Your task to perform on an android device: find snoozed emails in the gmail app Image 0: 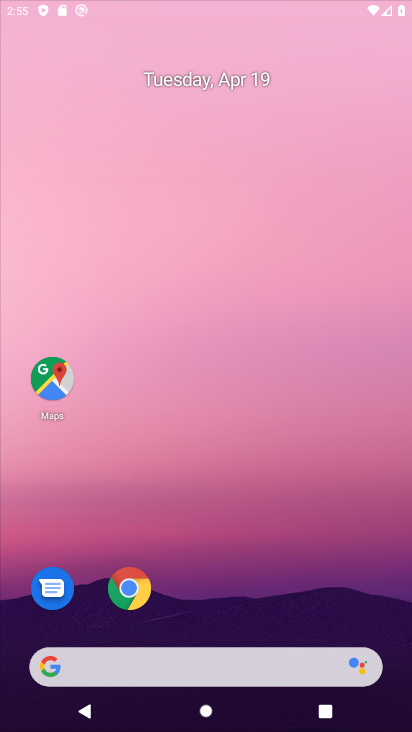
Step 0: drag from (207, 606) to (277, 188)
Your task to perform on an android device: find snoozed emails in the gmail app Image 1: 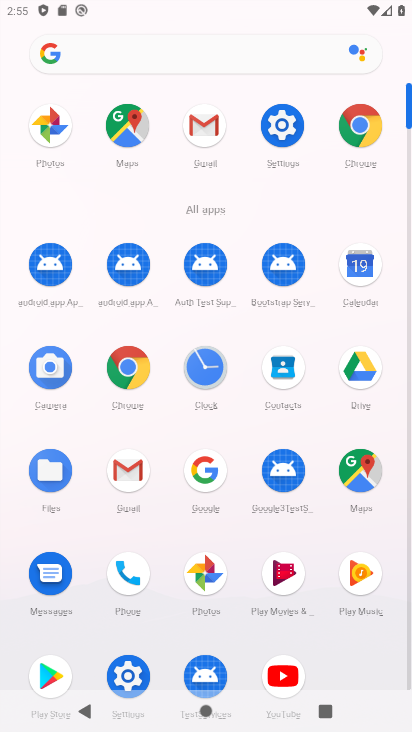
Step 1: click (135, 468)
Your task to perform on an android device: find snoozed emails in the gmail app Image 2: 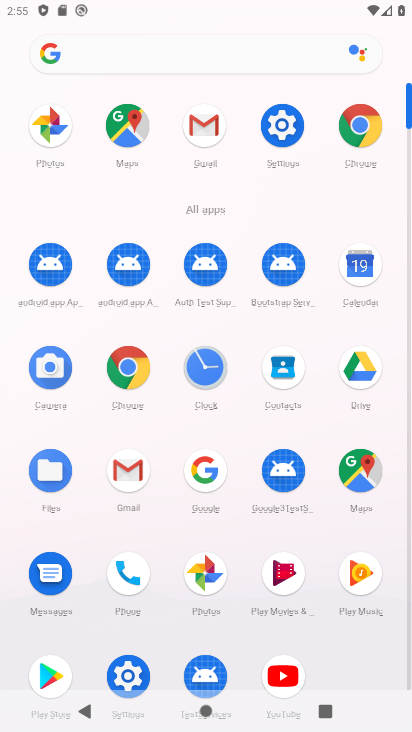
Step 2: click (135, 468)
Your task to perform on an android device: find snoozed emails in the gmail app Image 3: 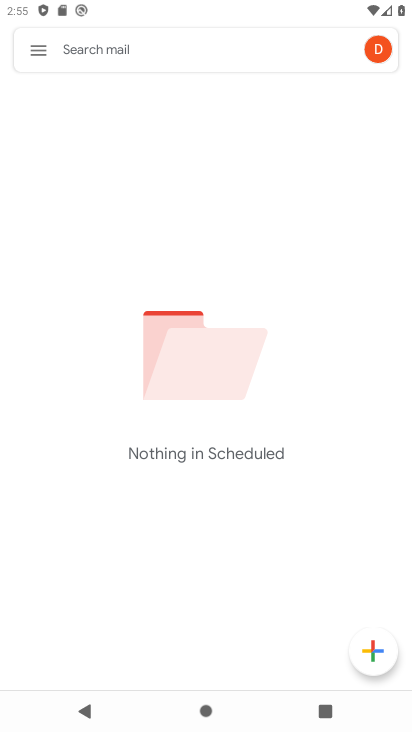
Step 3: click (33, 38)
Your task to perform on an android device: find snoozed emails in the gmail app Image 4: 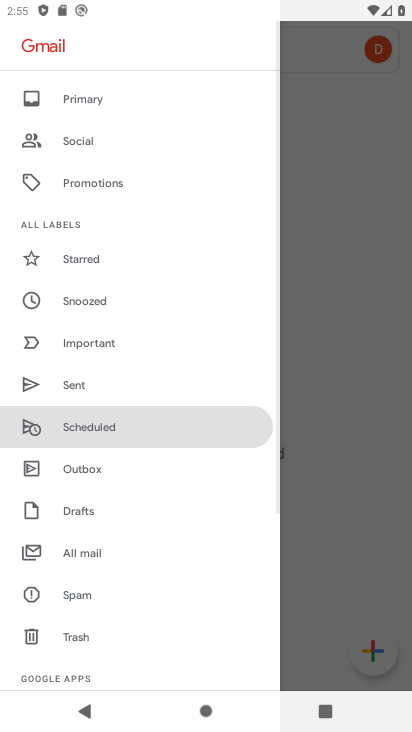
Step 4: click (99, 293)
Your task to perform on an android device: find snoozed emails in the gmail app Image 5: 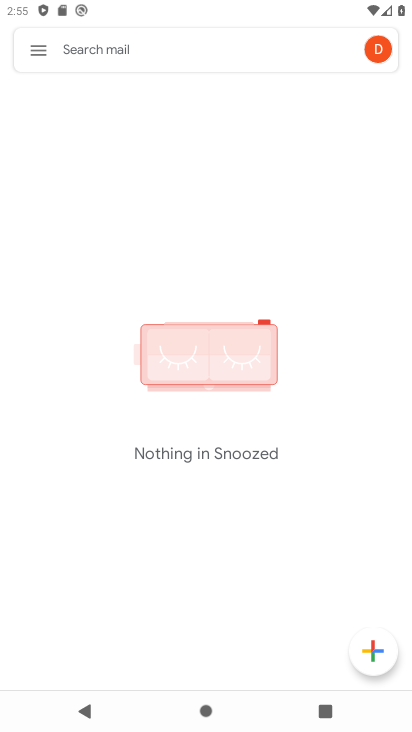
Step 5: click (38, 46)
Your task to perform on an android device: find snoozed emails in the gmail app Image 6: 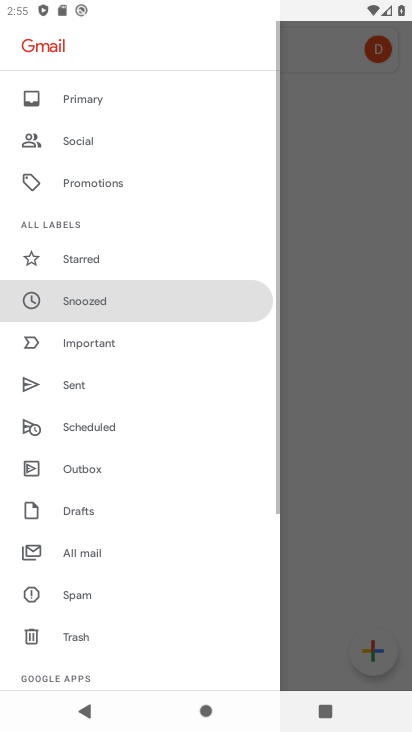
Step 6: click (98, 311)
Your task to perform on an android device: find snoozed emails in the gmail app Image 7: 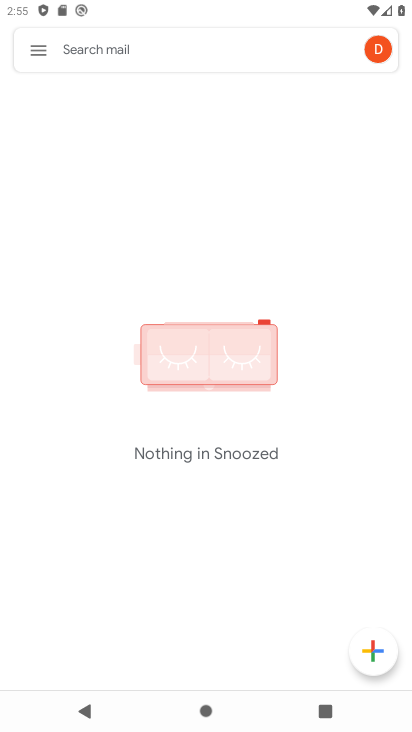
Step 7: task complete